Your task to perform on an android device: open app "TextNow: Call + Text Unlimited" (install if not already installed) Image 0: 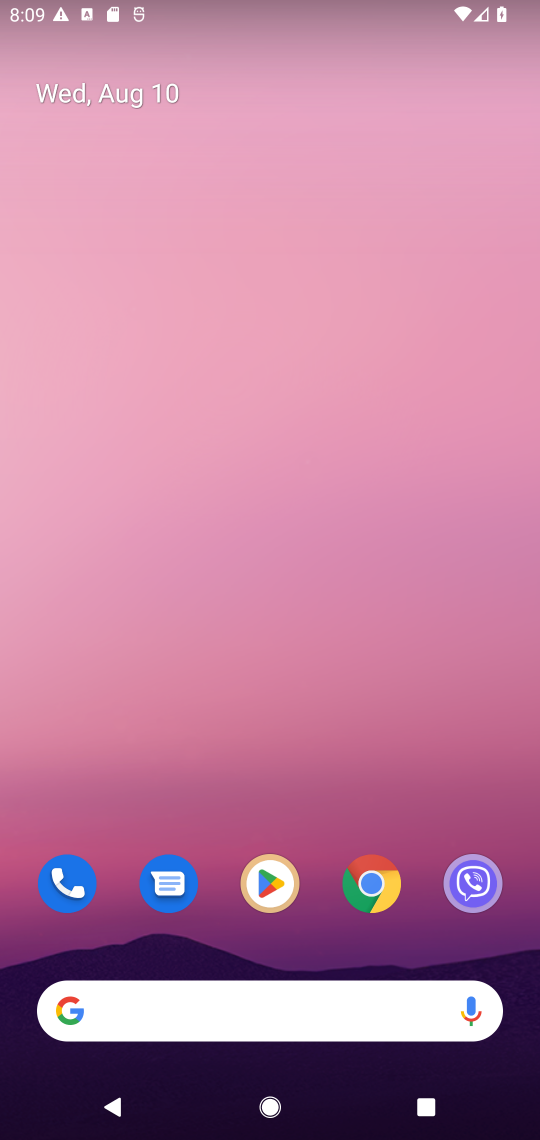
Step 0: drag from (327, 820) to (324, 89)
Your task to perform on an android device: open app "TextNow: Call + Text Unlimited" (install if not already installed) Image 1: 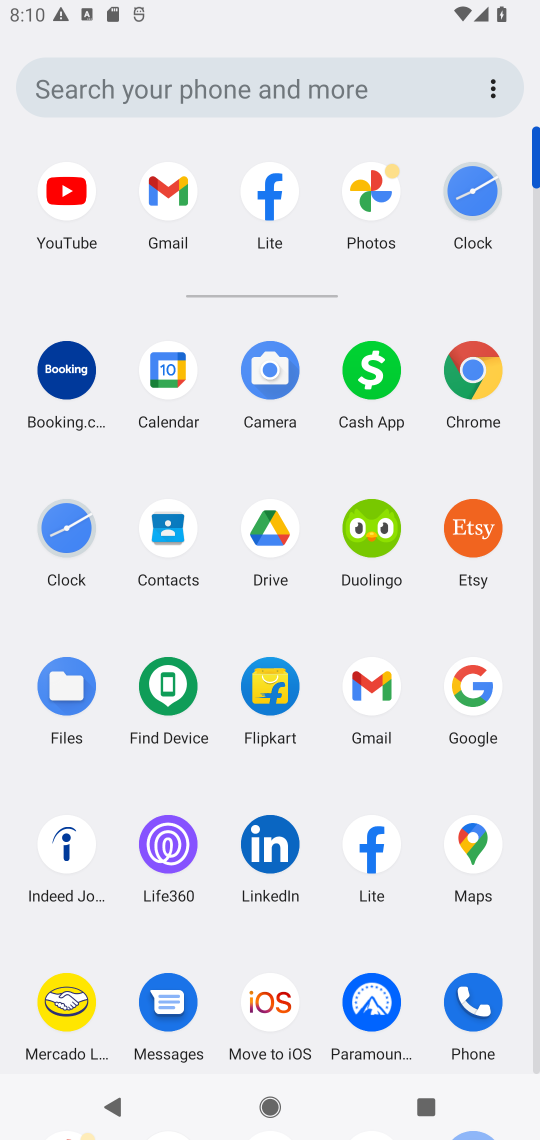
Step 1: drag from (291, 962) to (298, 530)
Your task to perform on an android device: open app "TextNow: Call + Text Unlimited" (install if not already installed) Image 2: 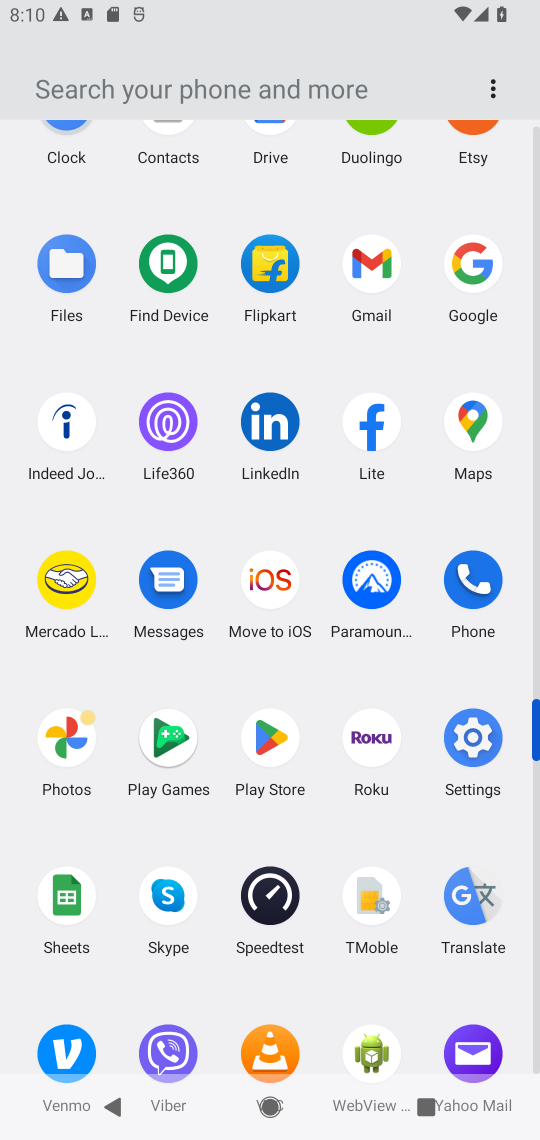
Step 2: click (266, 739)
Your task to perform on an android device: open app "TextNow: Call + Text Unlimited" (install if not already installed) Image 3: 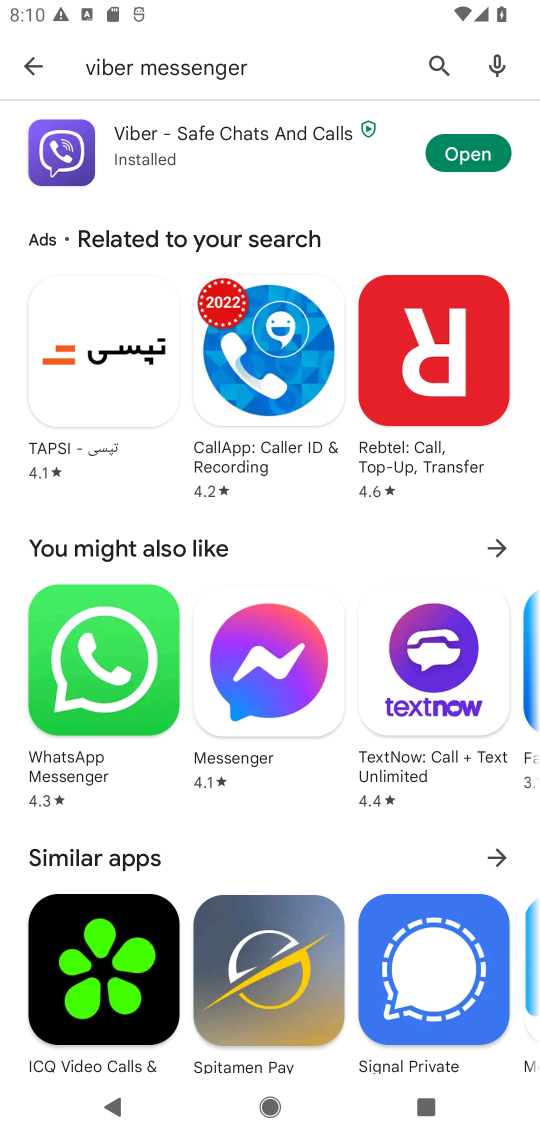
Step 3: click (435, 61)
Your task to perform on an android device: open app "TextNow: Call + Text Unlimited" (install if not already installed) Image 4: 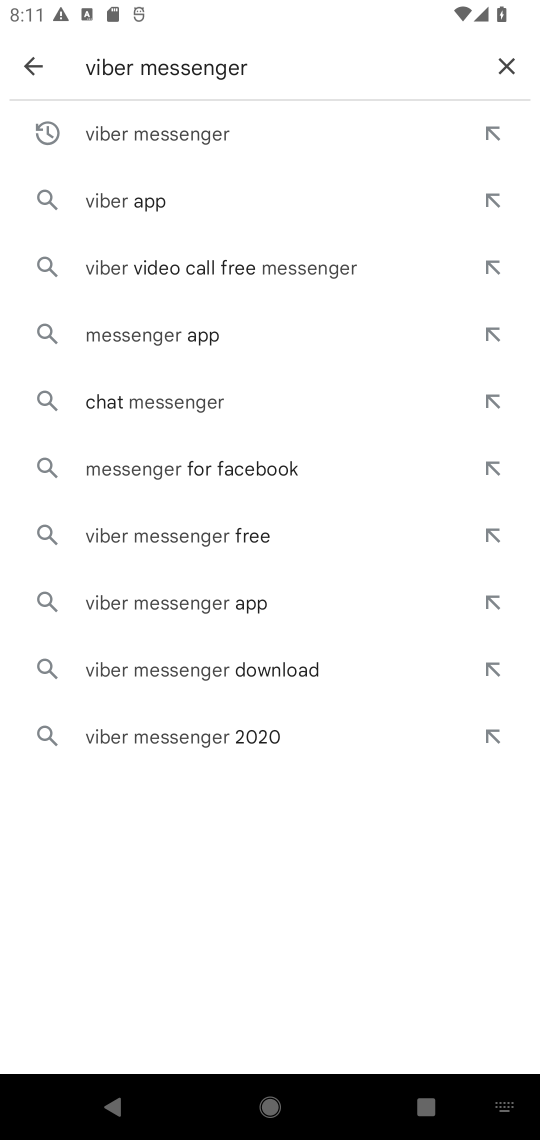
Step 4: click (504, 63)
Your task to perform on an android device: open app "TextNow: Call + Text Unlimited" (install if not already installed) Image 5: 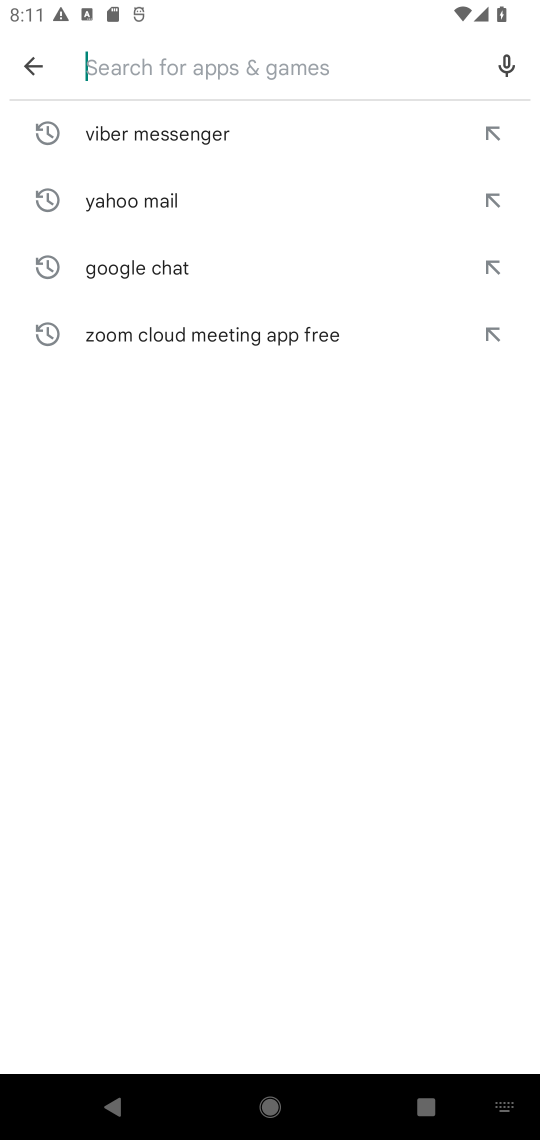
Step 5: type "TextNow: Call + Text Unlimited"
Your task to perform on an android device: open app "TextNow: Call + Text Unlimited" (install if not already installed) Image 6: 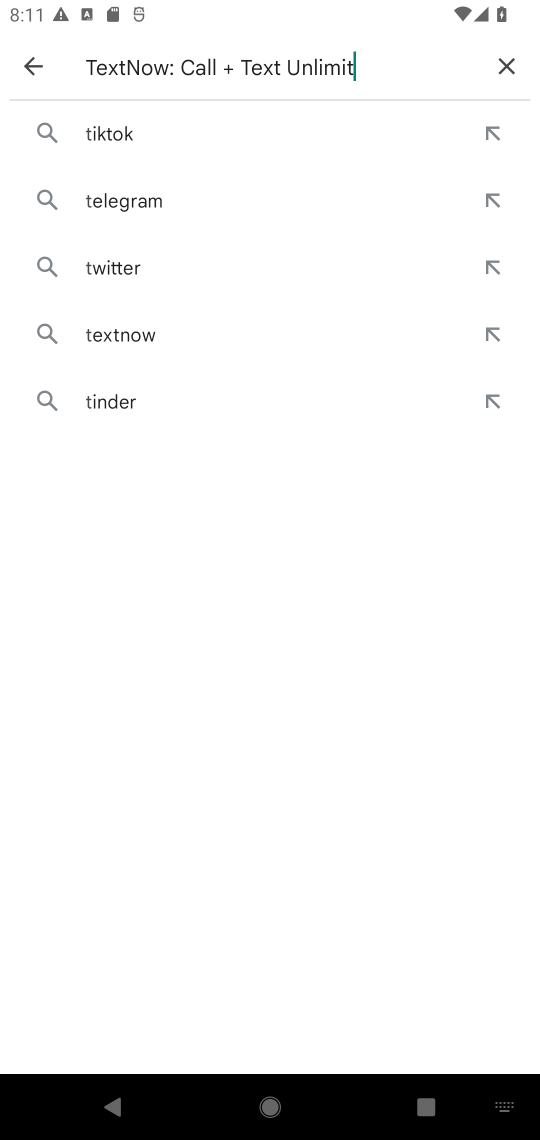
Step 6: type ""
Your task to perform on an android device: open app "TextNow: Call + Text Unlimited" (install if not already installed) Image 7: 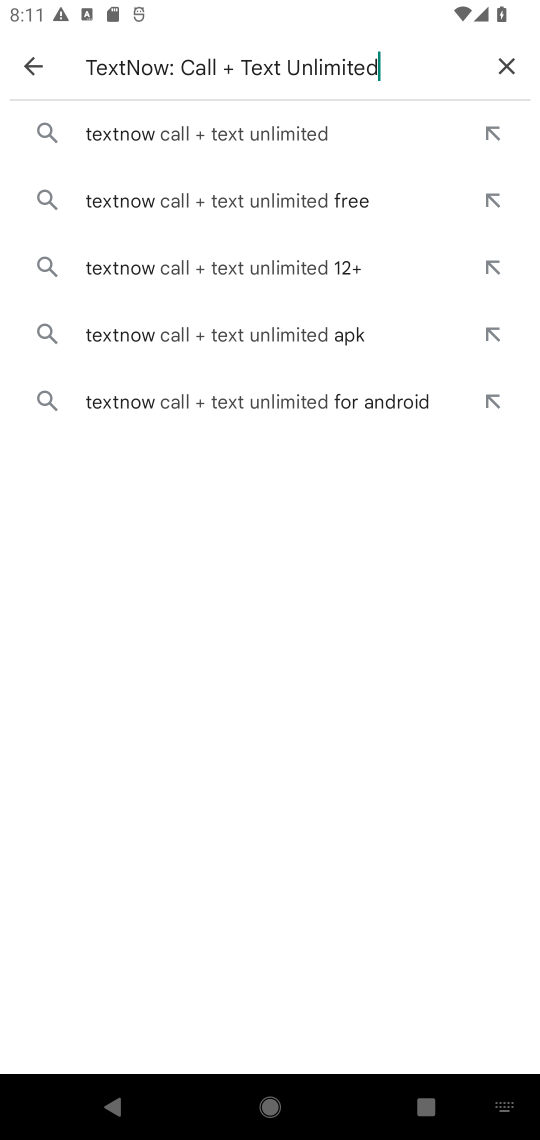
Step 7: click (183, 132)
Your task to perform on an android device: open app "TextNow: Call + Text Unlimited" (install if not already installed) Image 8: 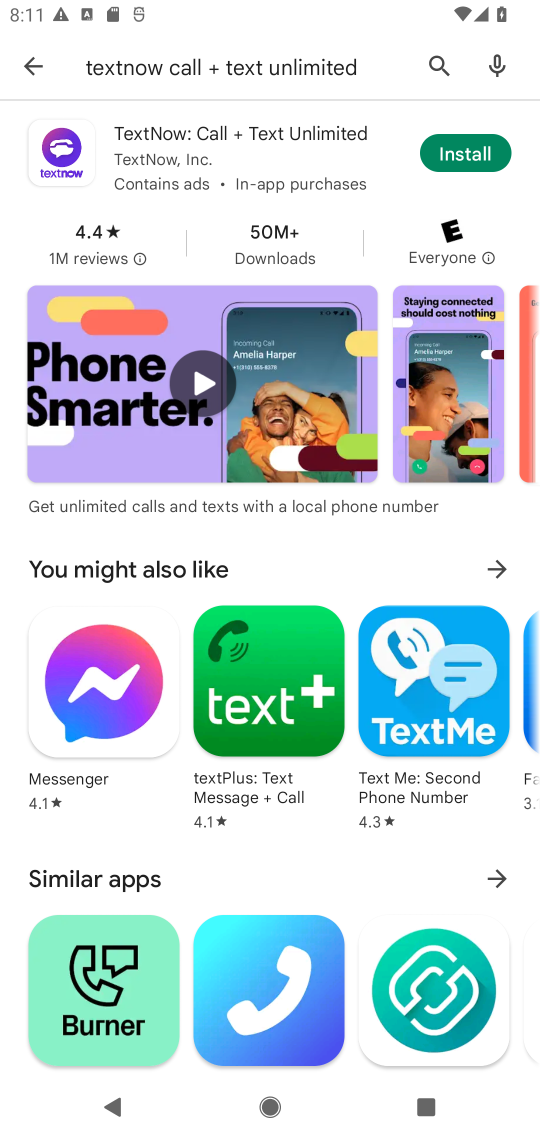
Step 8: click (469, 152)
Your task to perform on an android device: open app "TextNow: Call + Text Unlimited" (install if not already installed) Image 9: 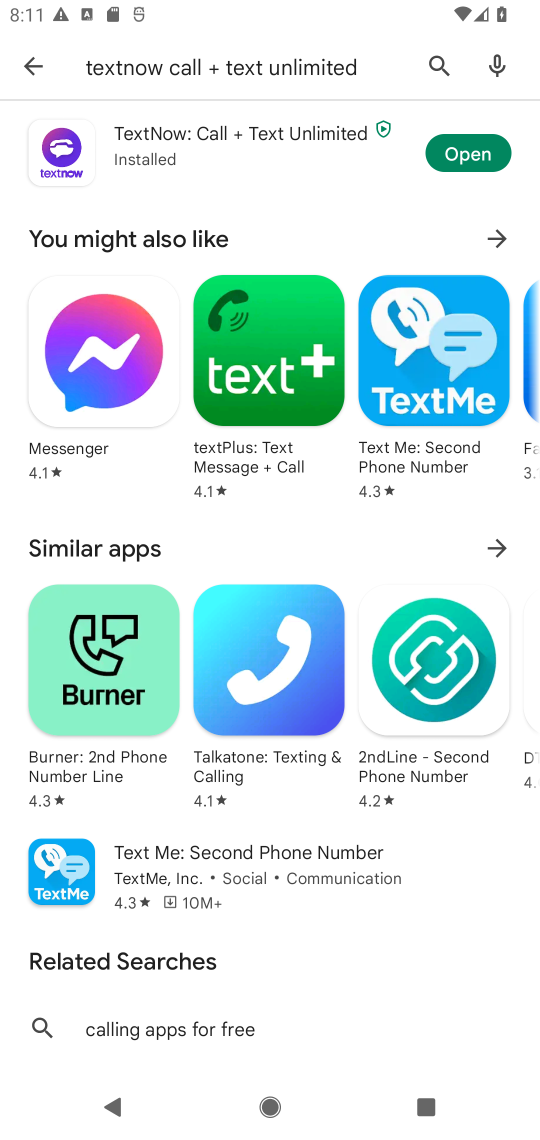
Step 9: click (467, 158)
Your task to perform on an android device: open app "TextNow: Call + Text Unlimited" (install if not already installed) Image 10: 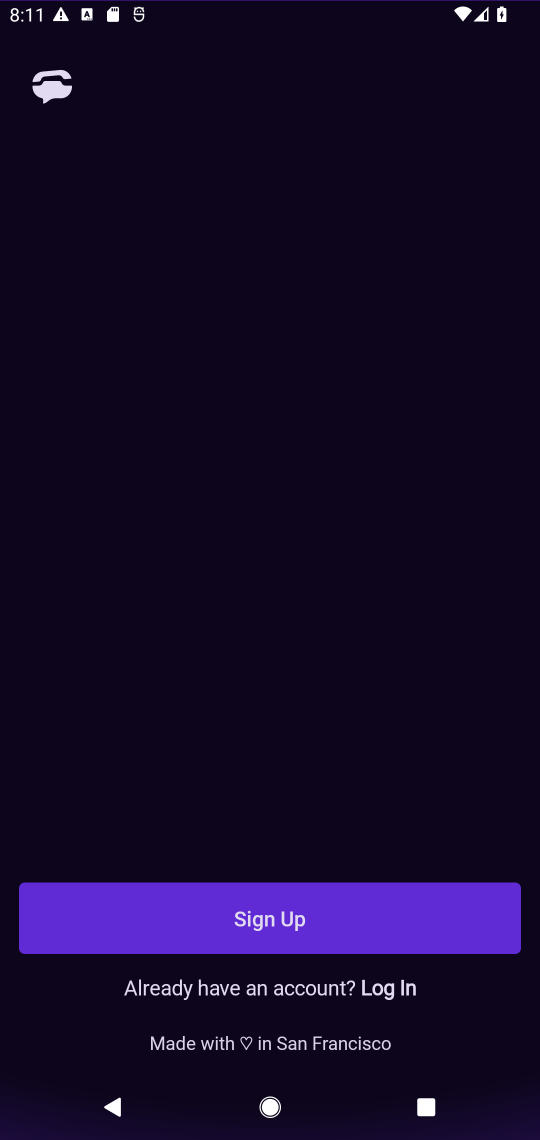
Step 10: task complete